Your task to perform on an android device: change text size in settings app Image 0: 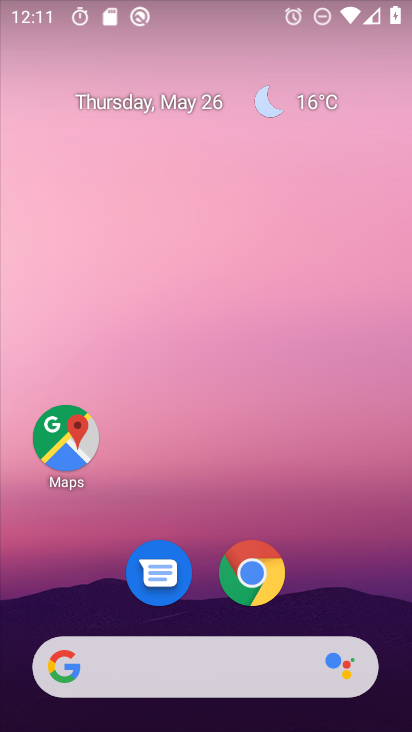
Step 0: drag from (352, 608) to (360, 5)
Your task to perform on an android device: change text size in settings app Image 1: 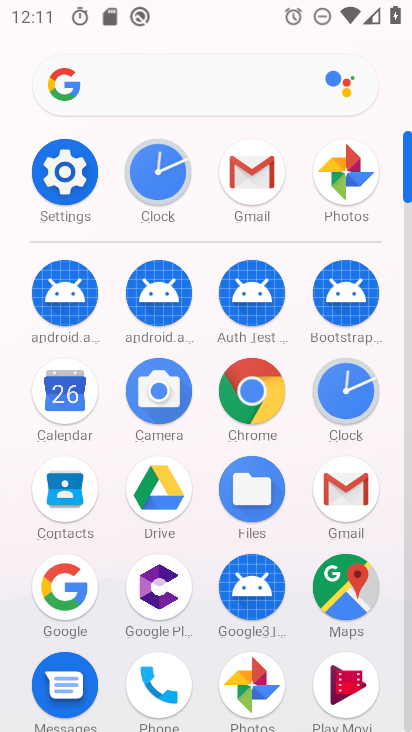
Step 1: click (57, 168)
Your task to perform on an android device: change text size in settings app Image 2: 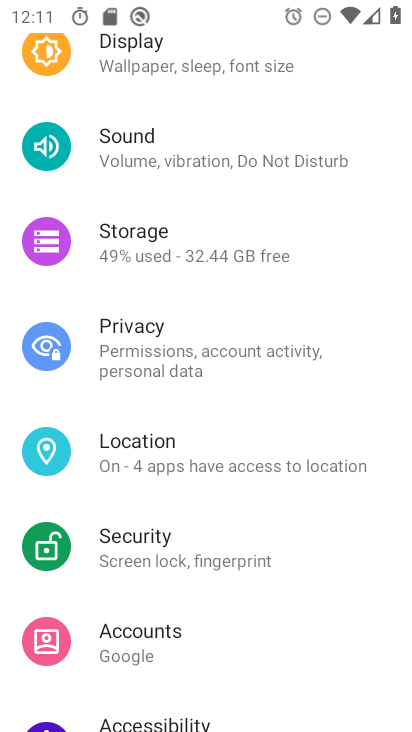
Step 2: click (128, 61)
Your task to perform on an android device: change text size in settings app Image 3: 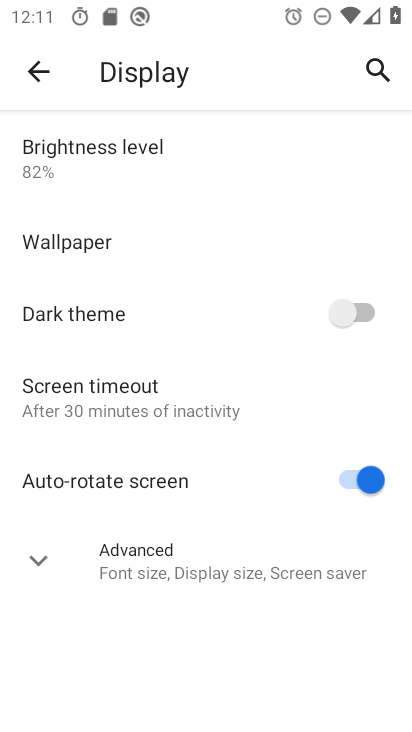
Step 3: click (42, 570)
Your task to perform on an android device: change text size in settings app Image 4: 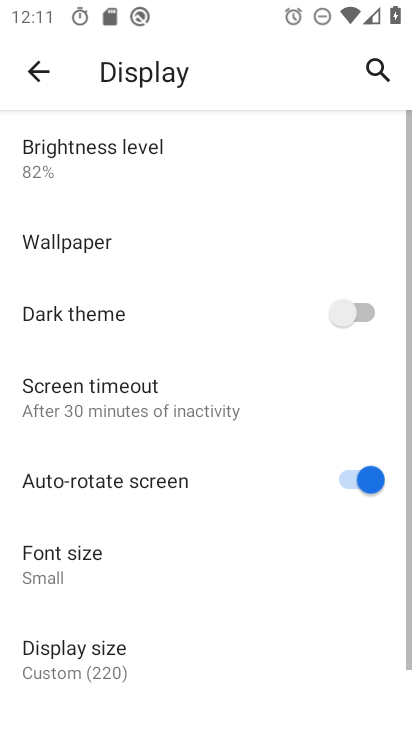
Step 4: click (68, 567)
Your task to perform on an android device: change text size in settings app Image 5: 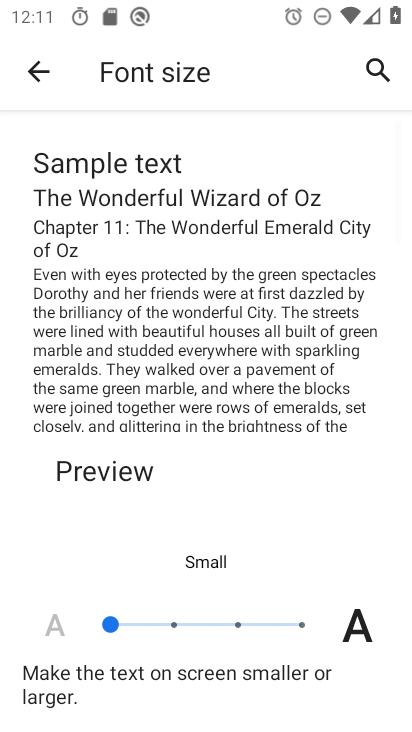
Step 5: click (170, 623)
Your task to perform on an android device: change text size in settings app Image 6: 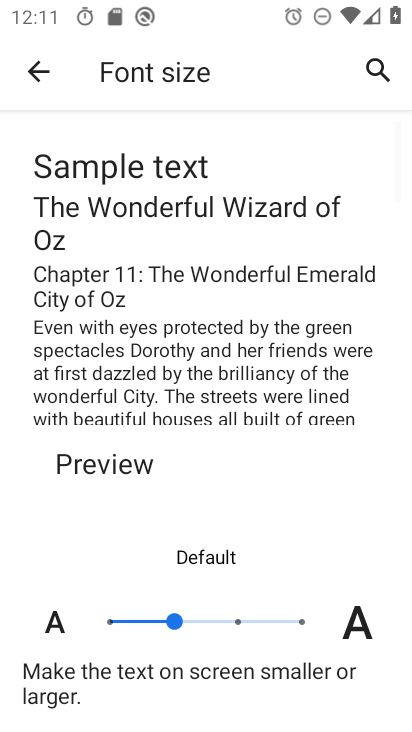
Step 6: task complete